Your task to perform on an android device: Search for vegetarian restaurants on Maps Image 0: 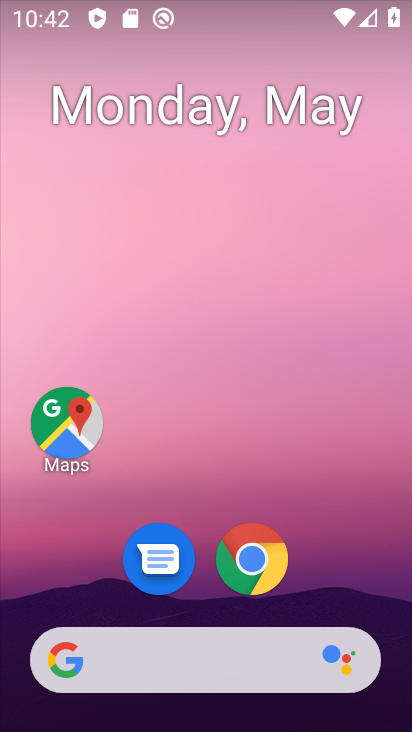
Step 0: click (78, 431)
Your task to perform on an android device: Search for vegetarian restaurants on Maps Image 1: 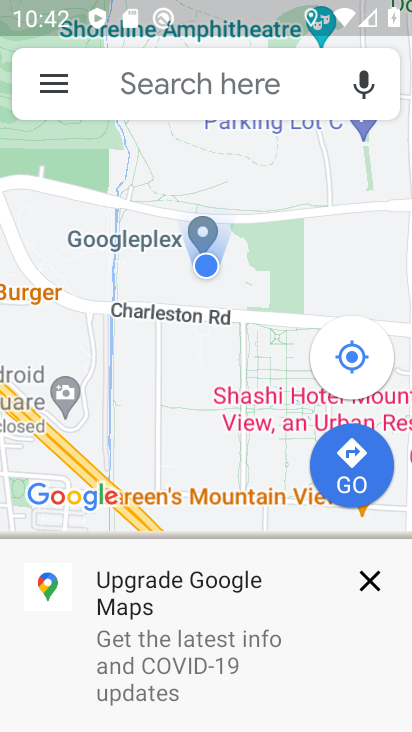
Step 1: click (183, 94)
Your task to perform on an android device: Search for vegetarian restaurants on Maps Image 2: 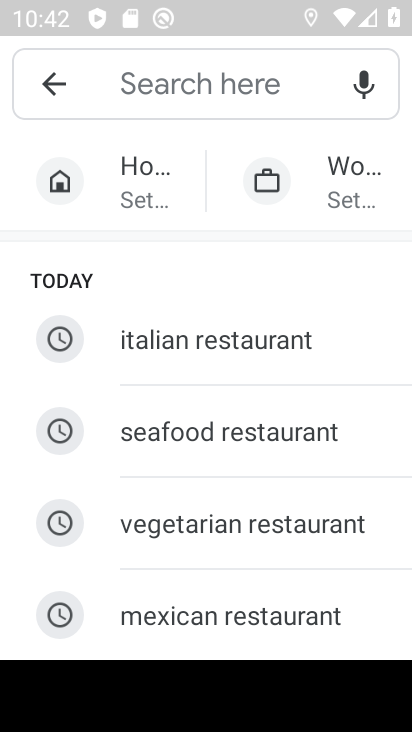
Step 2: type " vegetarian restaurants "
Your task to perform on an android device: Search for vegetarian restaurants on Maps Image 3: 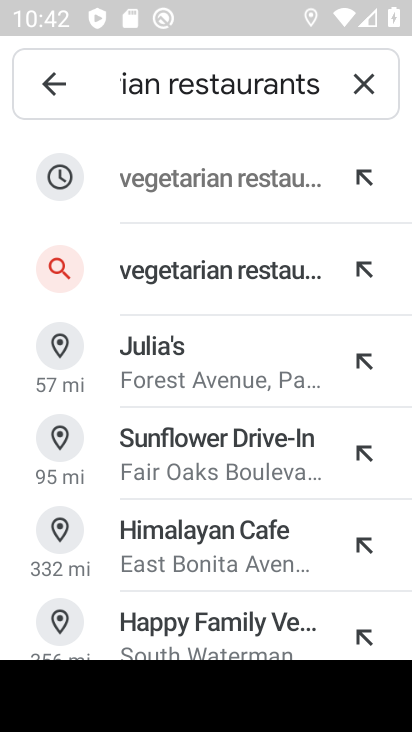
Step 3: click (230, 265)
Your task to perform on an android device: Search for vegetarian restaurants on Maps Image 4: 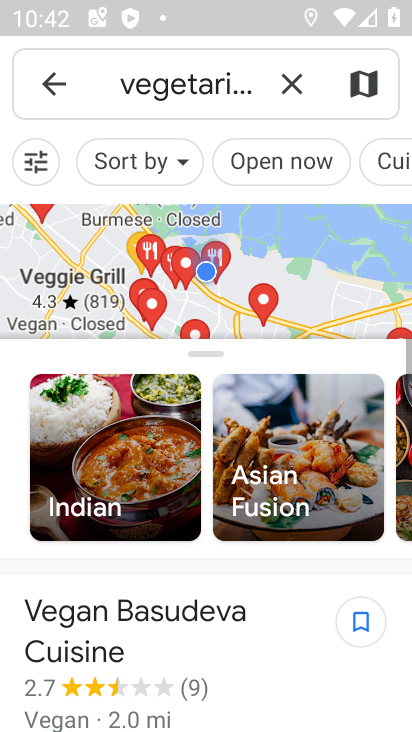
Step 4: task complete